Your task to perform on an android device: Go to Google Image 0: 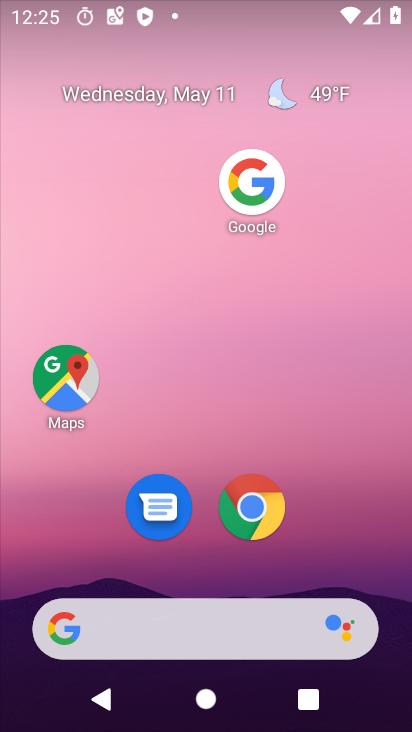
Step 0: click (252, 182)
Your task to perform on an android device: Go to Google Image 1: 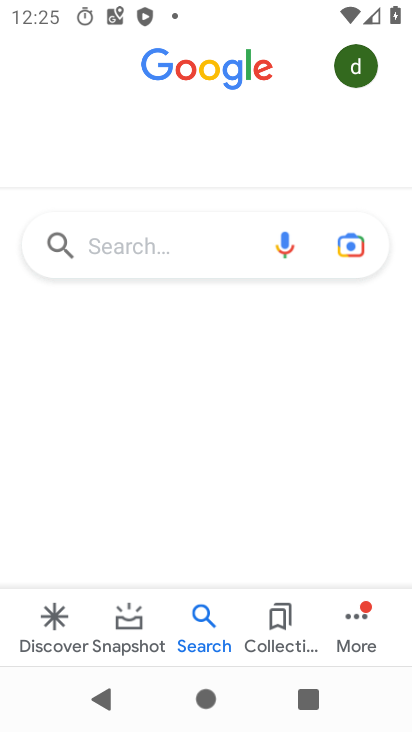
Step 1: task complete